Your task to perform on an android device: open app "PlayWell" (install if not already installed) and go to login screen Image 0: 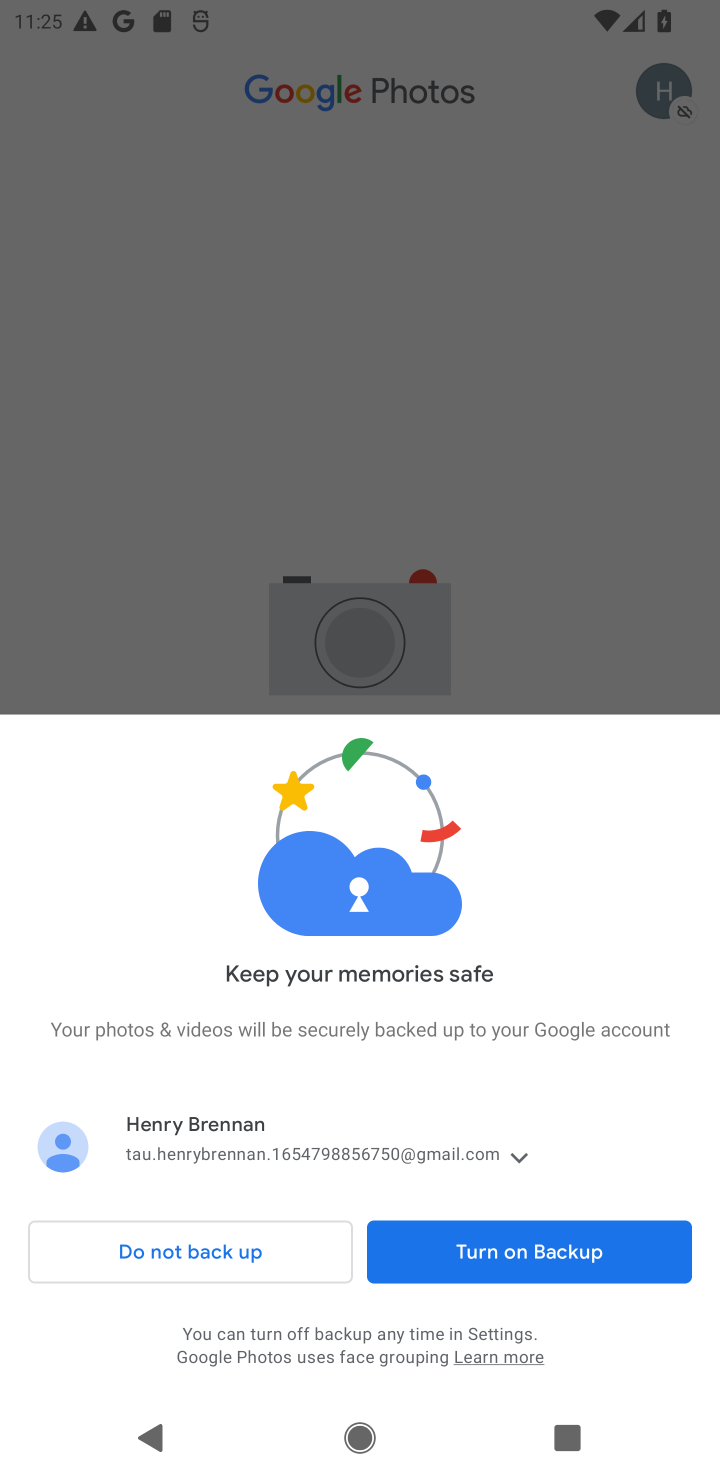
Step 0: press home button
Your task to perform on an android device: open app "PlayWell" (install if not already installed) and go to login screen Image 1: 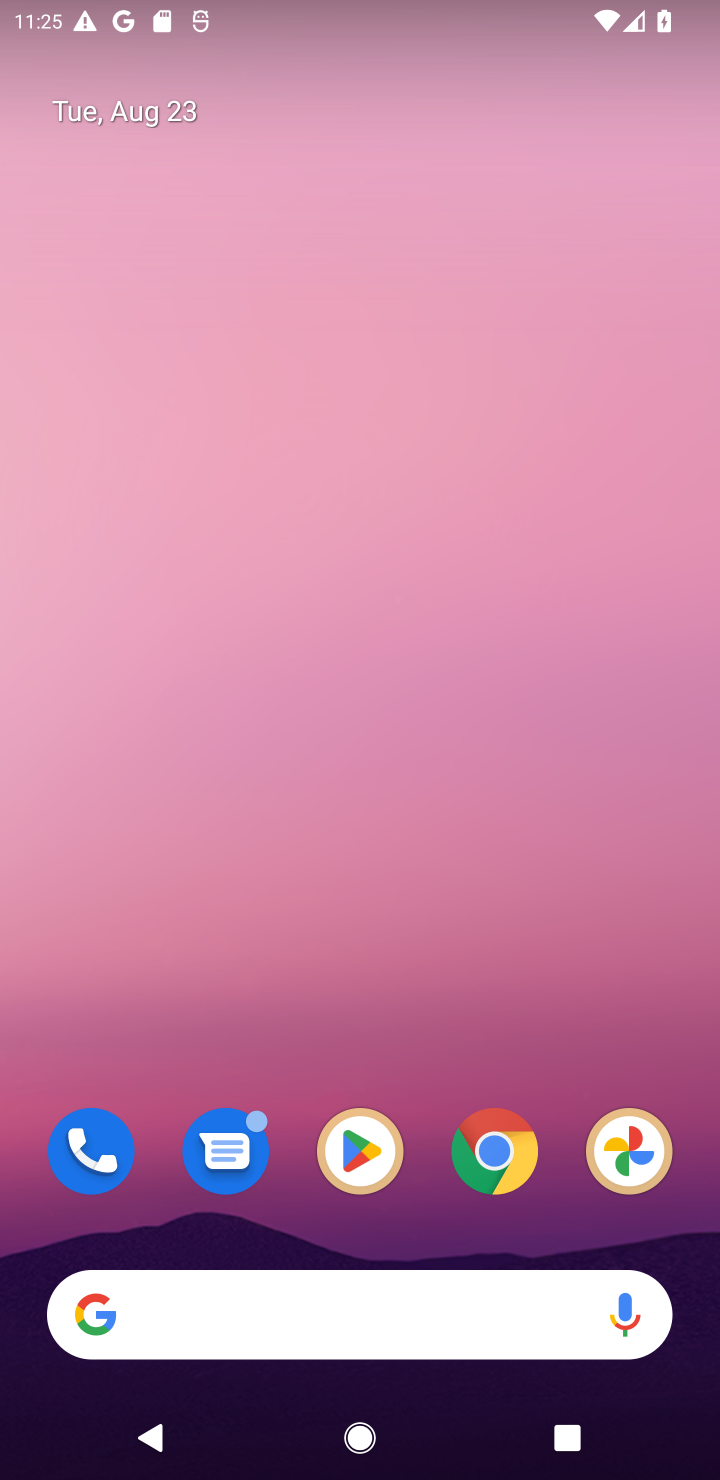
Step 1: click (359, 1177)
Your task to perform on an android device: open app "PlayWell" (install if not already installed) and go to login screen Image 2: 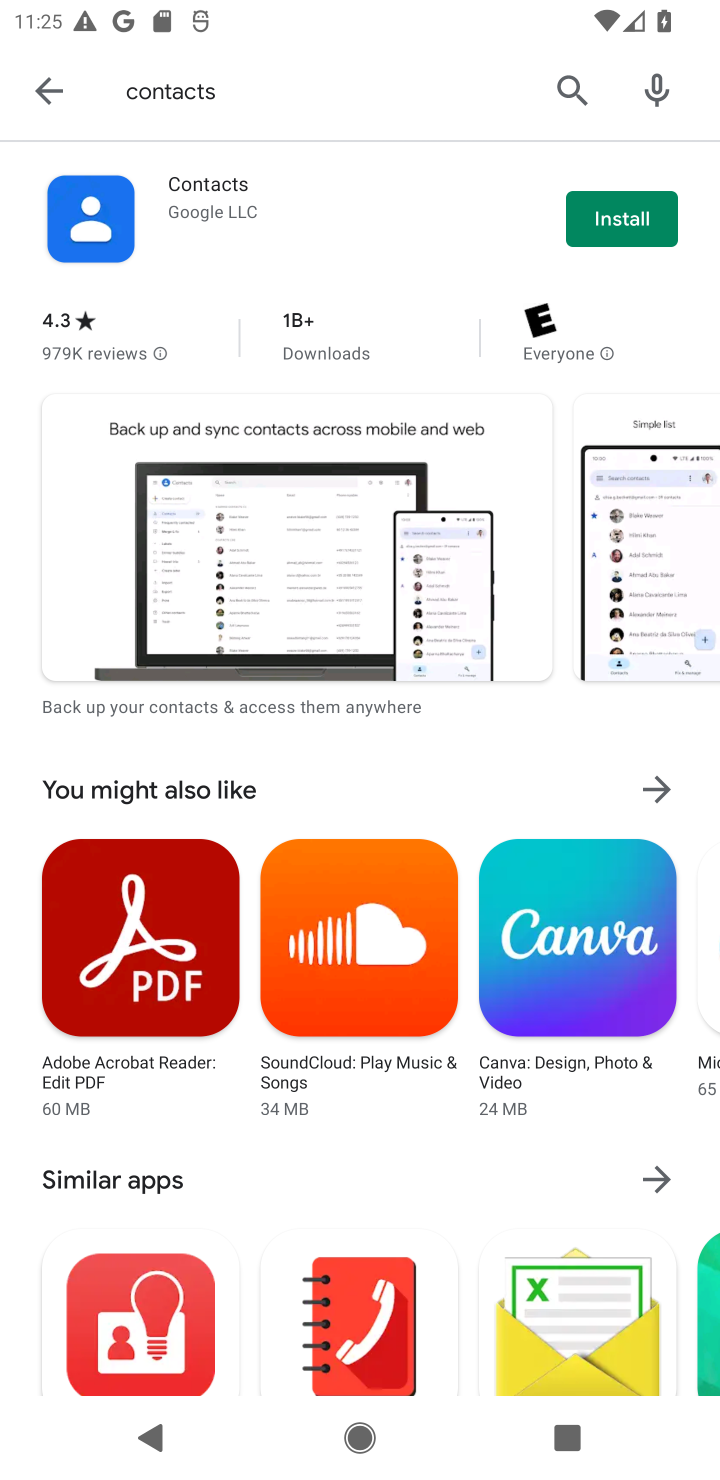
Step 2: click (568, 94)
Your task to perform on an android device: open app "PlayWell" (install if not already installed) and go to login screen Image 3: 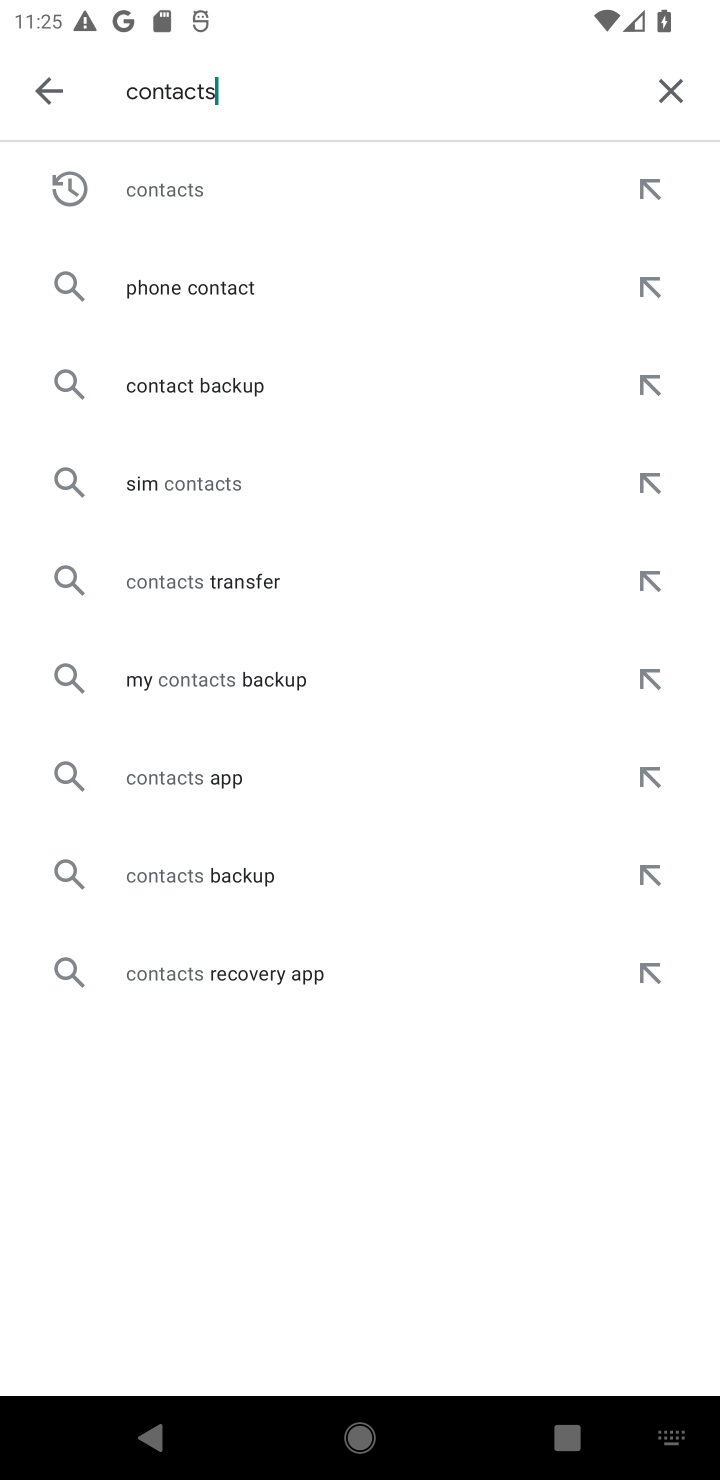
Step 3: click (667, 101)
Your task to perform on an android device: open app "PlayWell" (install if not already installed) and go to login screen Image 4: 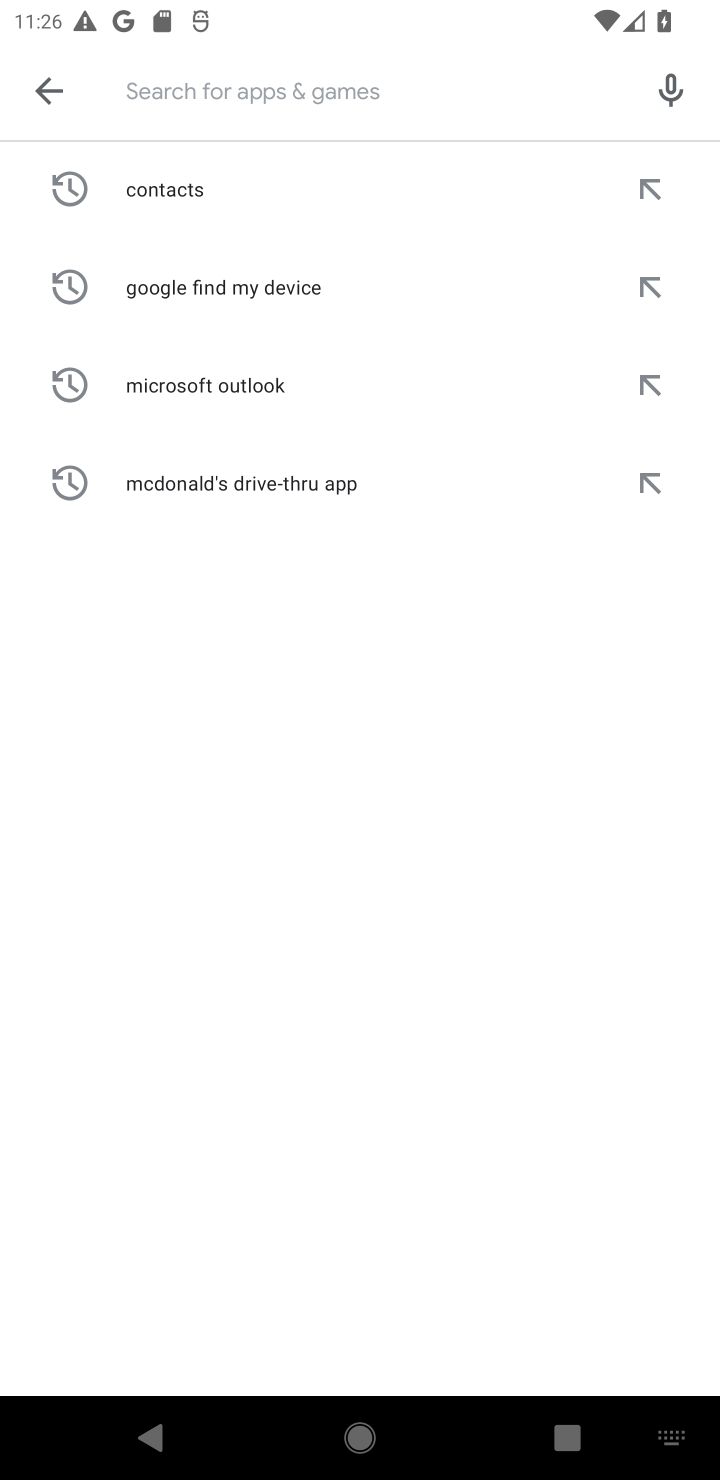
Step 4: type "PlayWell"
Your task to perform on an android device: open app "PlayWell" (install if not already installed) and go to login screen Image 5: 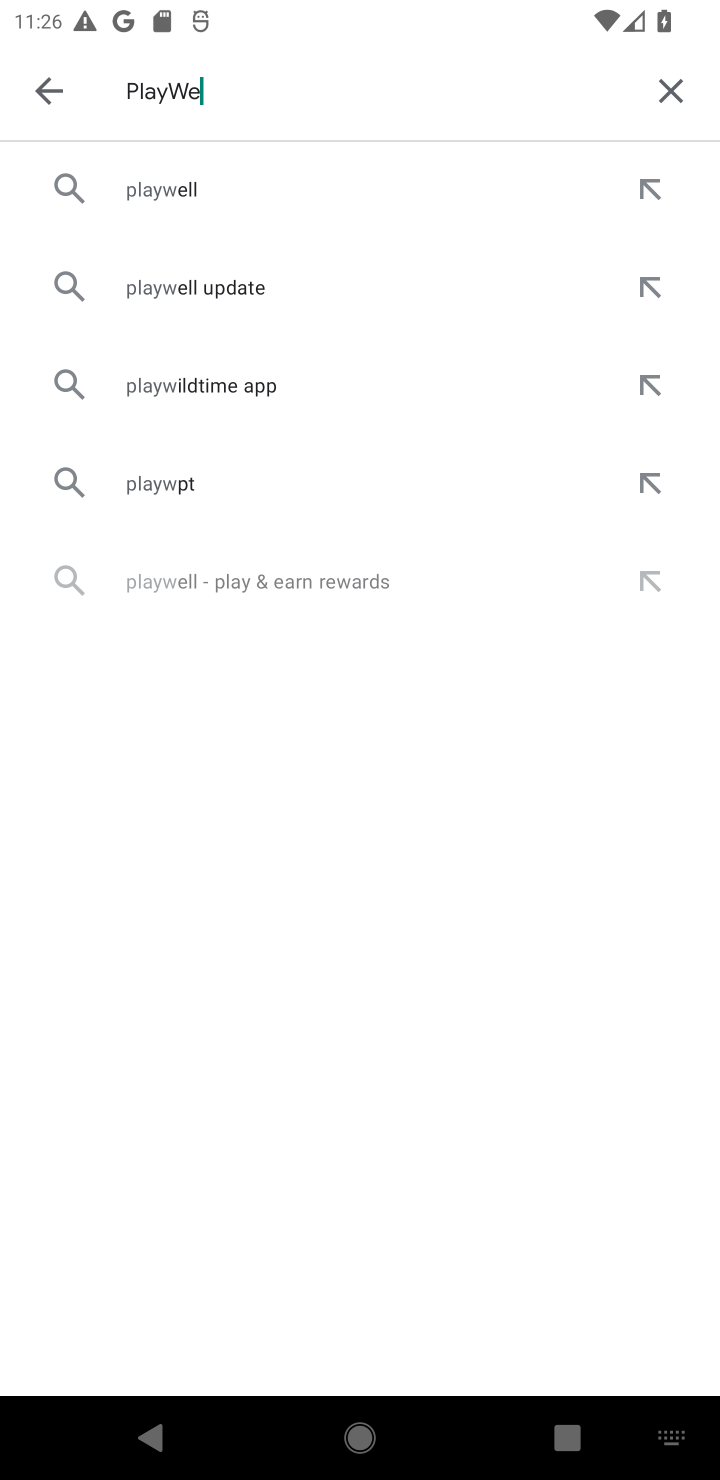
Step 5: type ""
Your task to perform on an android device: open app "PlayWell" (install if not already installed) and go to login screen Image 6: 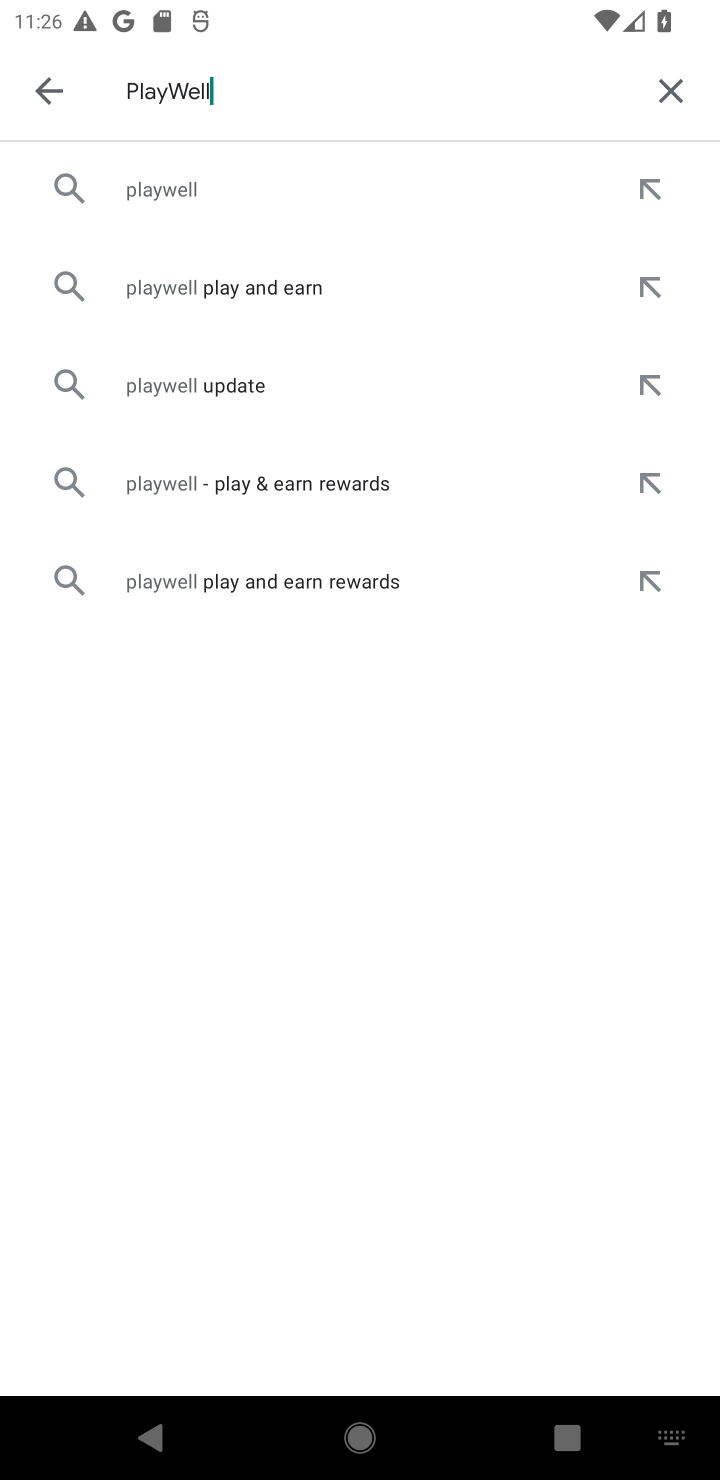
Step 6: click (206, 190)
Your task to perform on an android device: open app "PlayWell" (install if not already installed) and go to login screen Image 7: 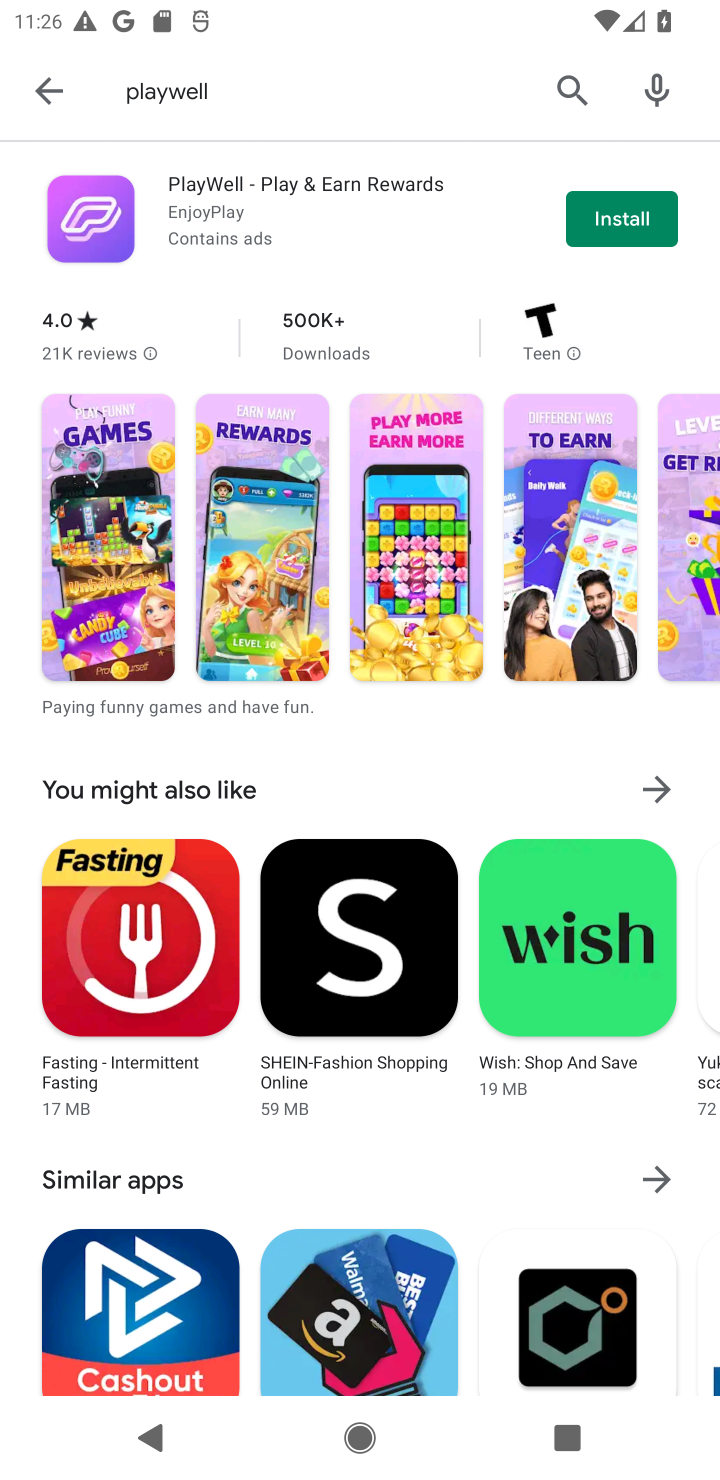
Step 7: click (617, 233)
Your task to perform on an android device: open app "PlayWell" (install if not already installed) and go to login screen Image 8: 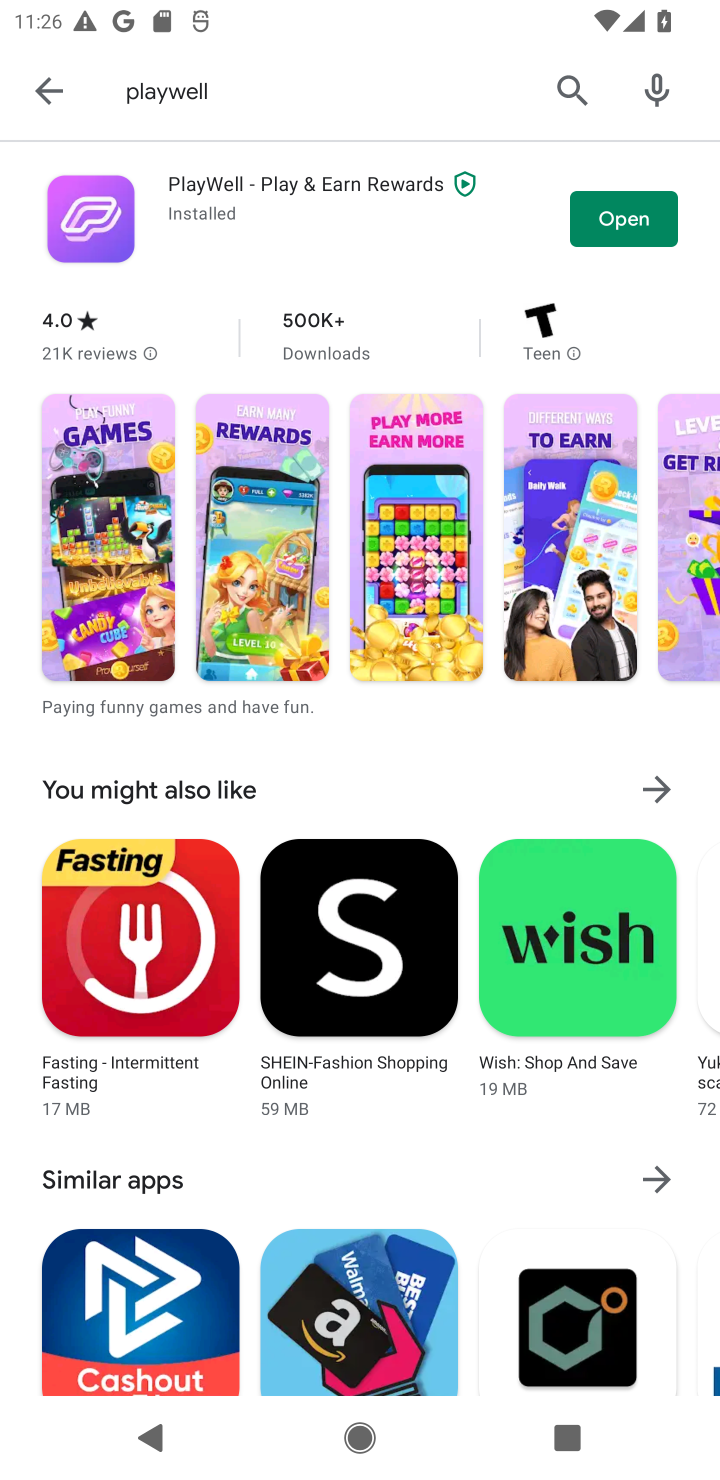
Step 8: click (617, 233)
Your task to perform on an android device: open app "PlayWell" (install if not already installed) and go to login screen Image 9: 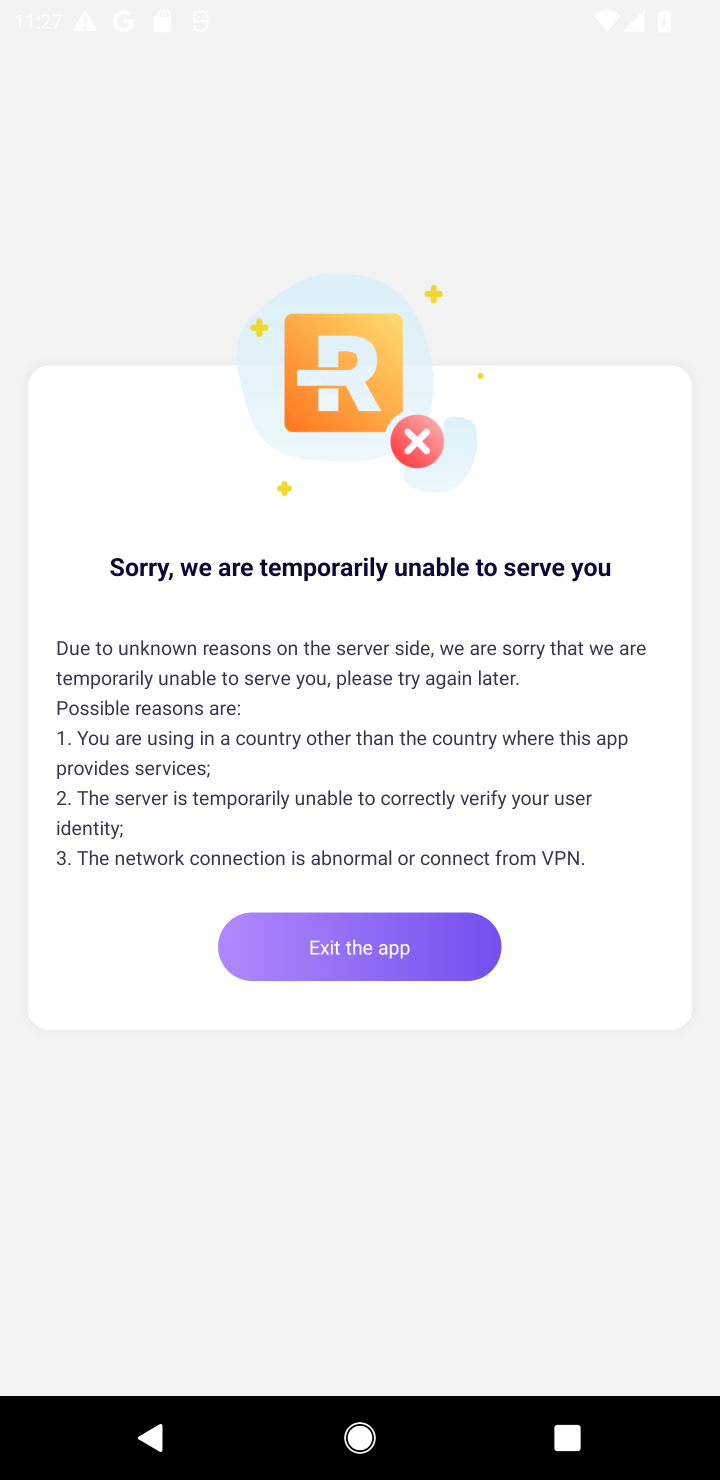
Step 9: task complete